Your task to perform on an android device: Open my contact list Image 0: 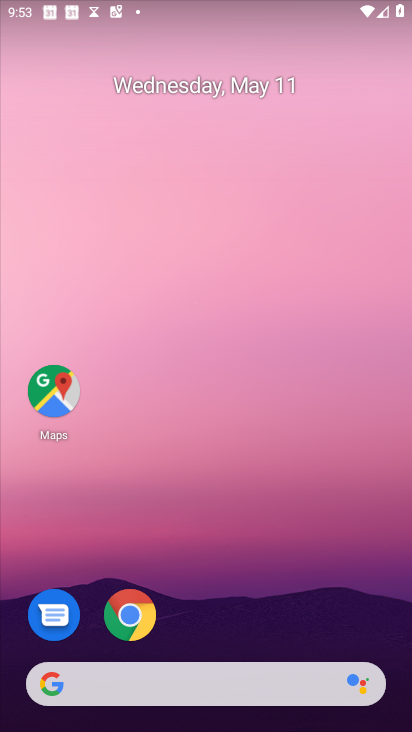
Step 0: drag from (33, 648) to (253, 206)
Your task to perform on an android device: Open my contact list Image 1: 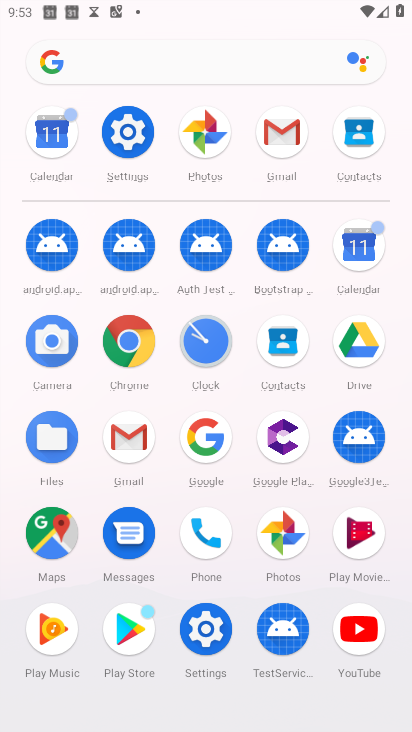
Step 1: click (187, 532)
Your task to perform on an android device: Open my contact list Image 2: 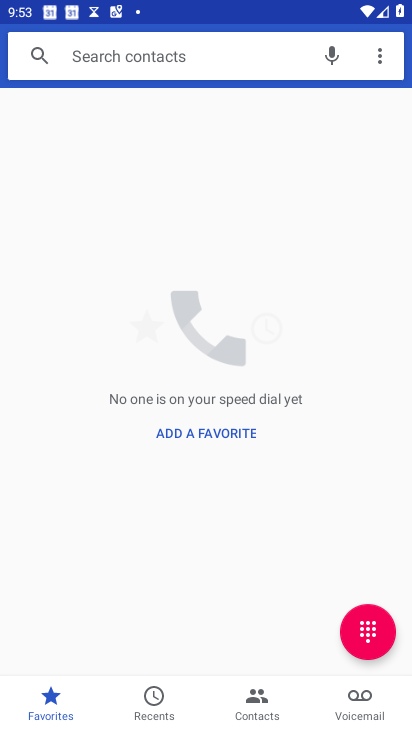
Step 2: click (265, 712)
Your task to perform on an android device: Open my contact list Image 3: 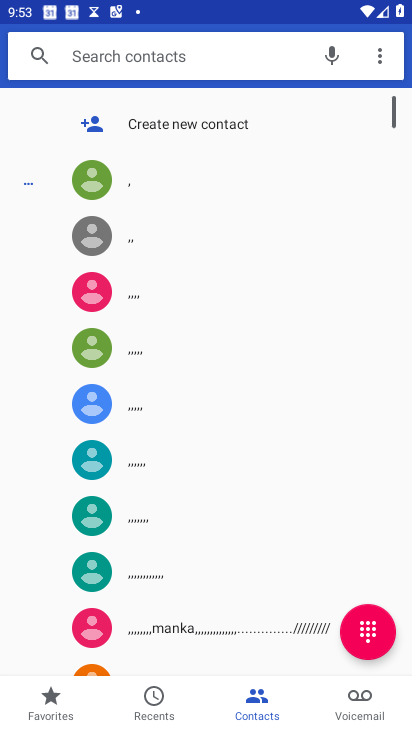
Step 3: task complete